Your task to perform on an android device: Go to notification settings Image 0: 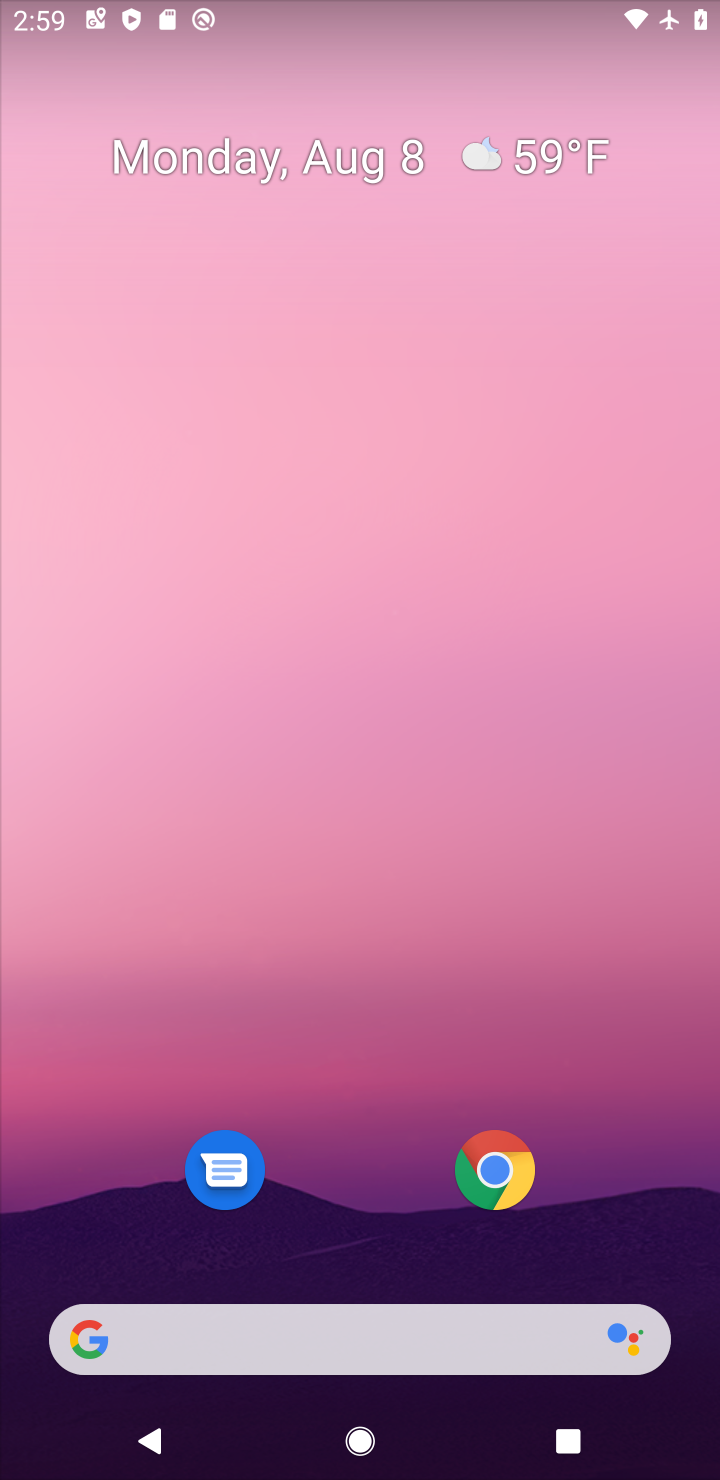
Step 0: drag from (350, 1163) to (381, 382)
Your task to perform on an android device: Go to notification settings Image 1: 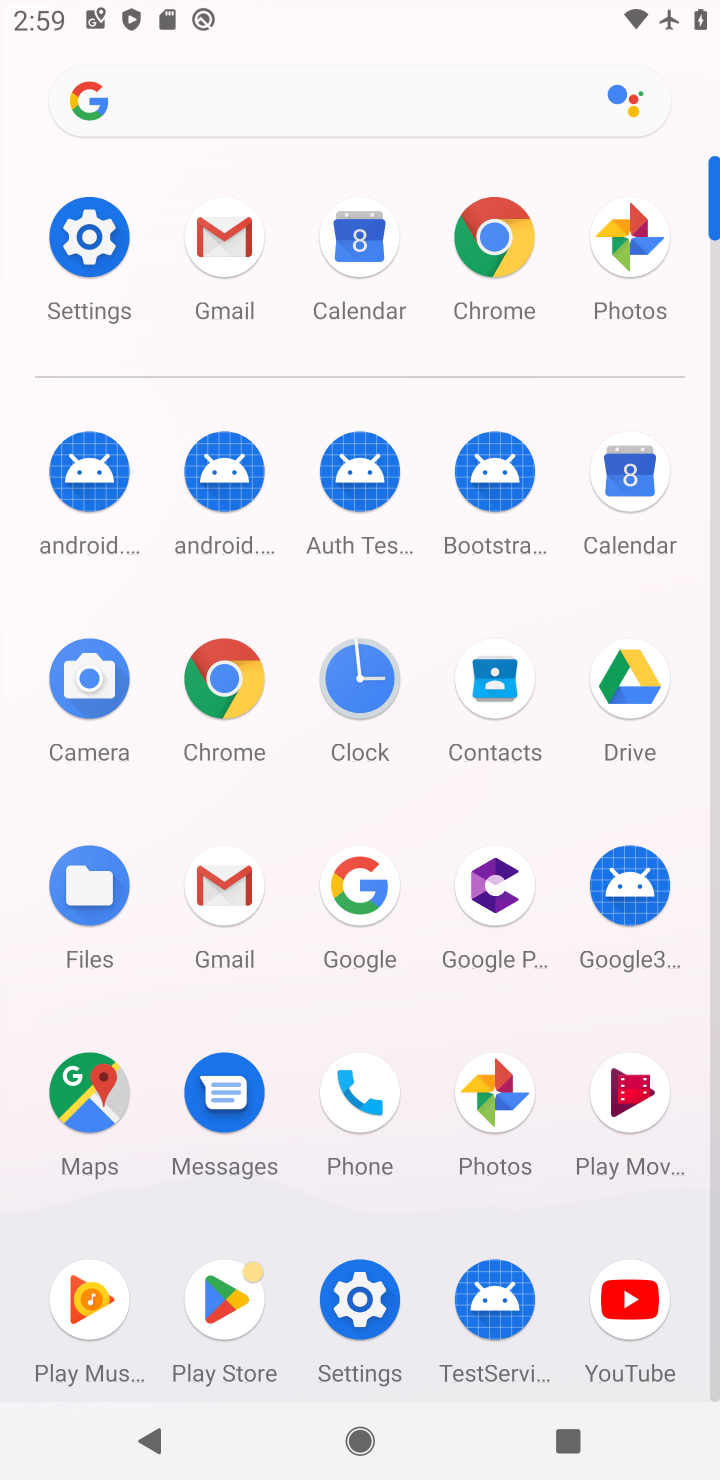
Step 1: click (86, 255)
Your task to perform on an android device: Go to notification settings Image 2: 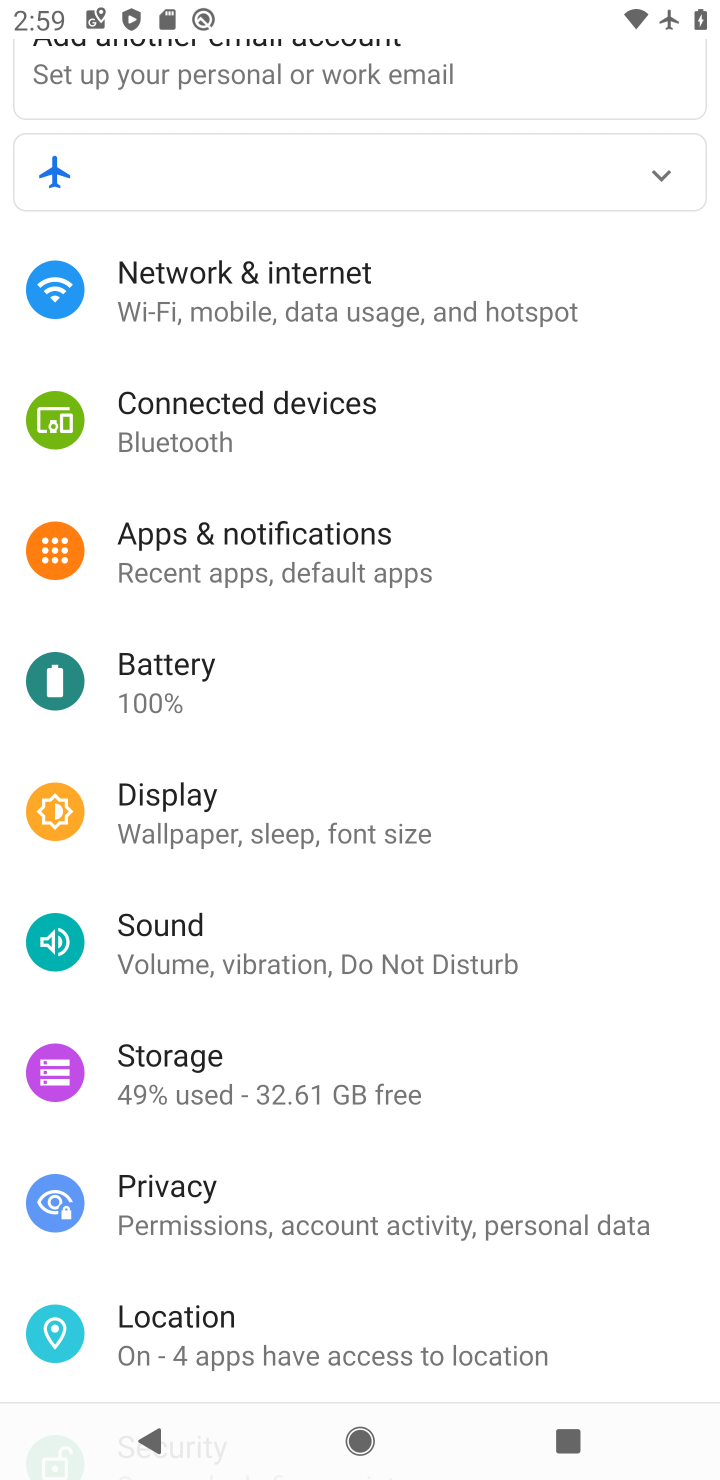
Step 2: click (280, 554)
Your task to perform on an android device: Go to notification settings Image 3: 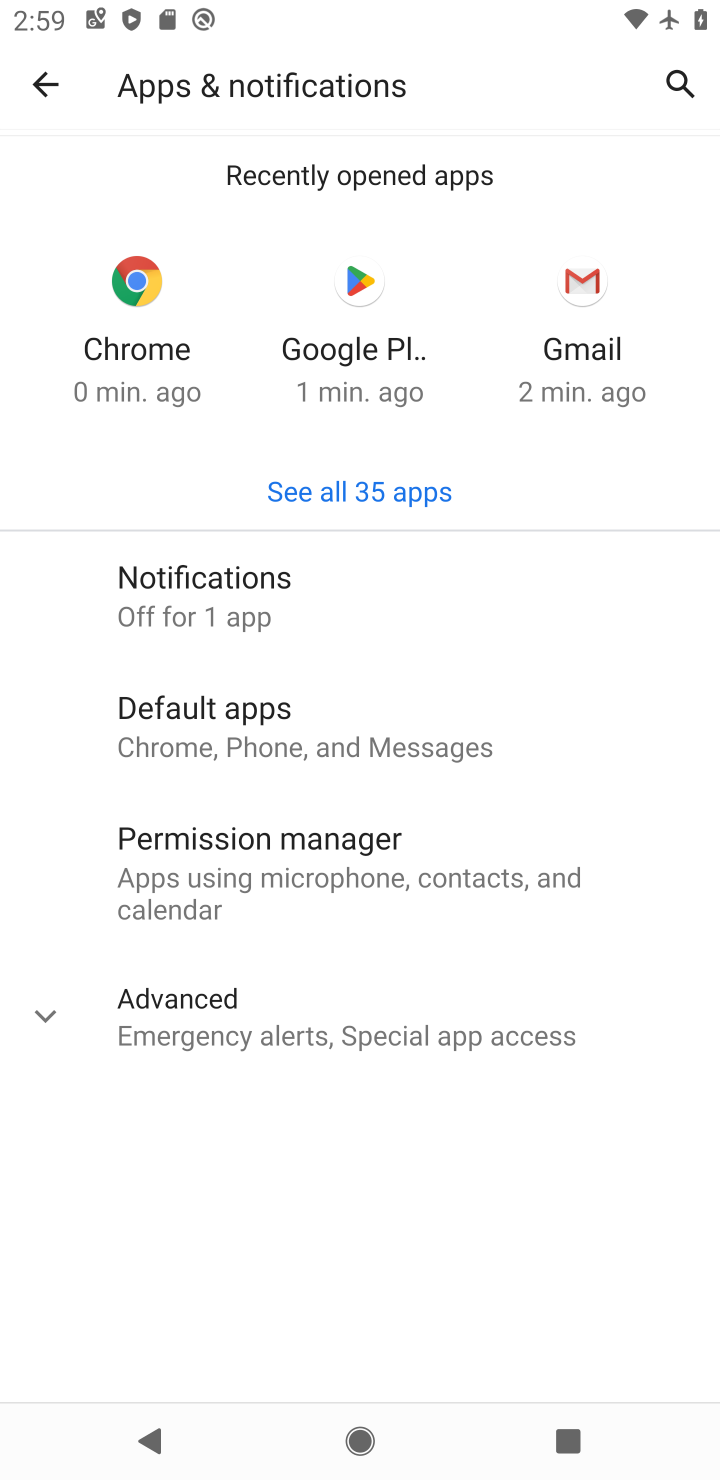
Step 3: click (239, 598)
Your task to perform on an android device: Go to notification settings Image 4: 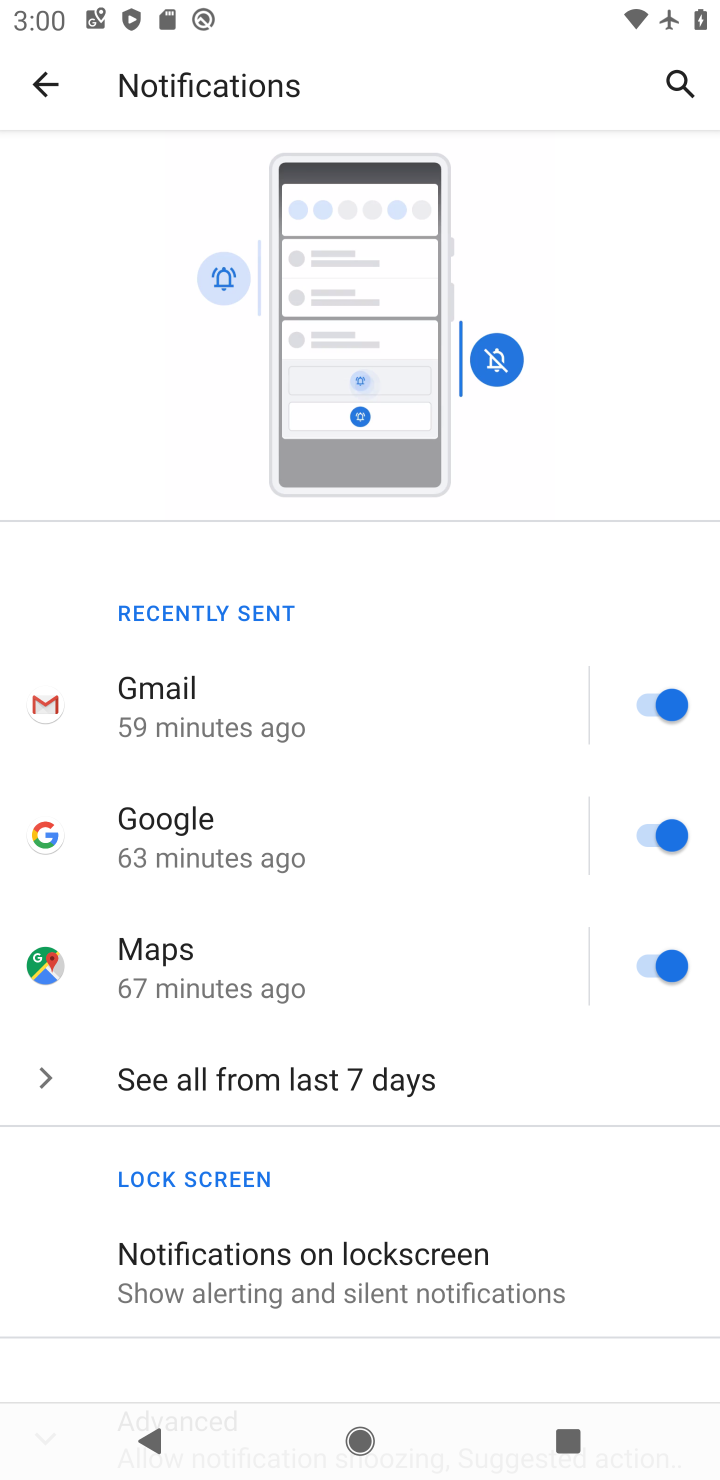
Step 4: task complete